Your task to perform on an android device: toggle improve location accuracy Image 0: 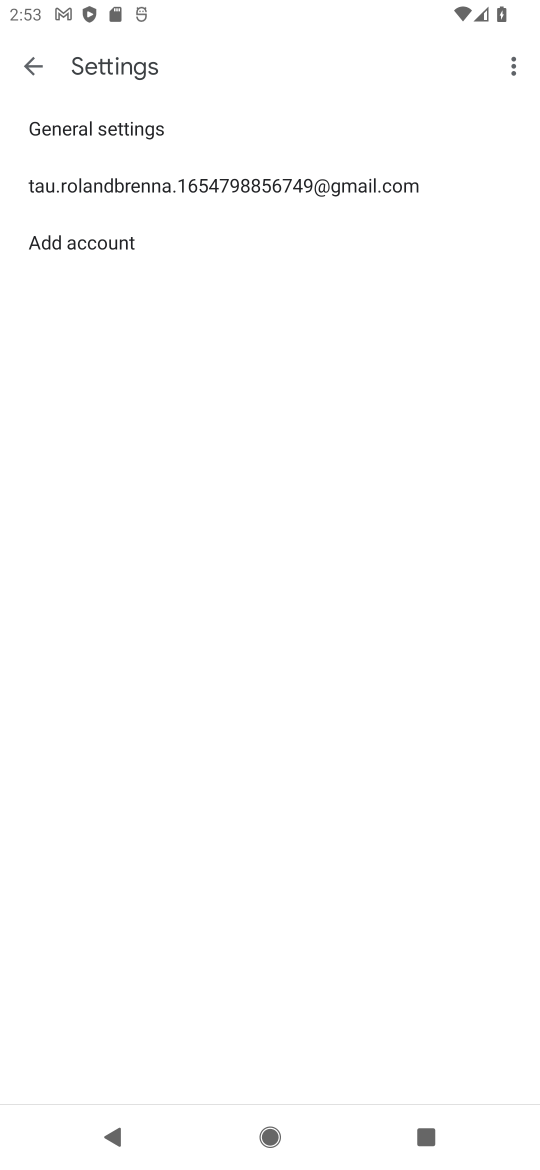
Step 0: press home button
Your task to perform on an android device: toggle improve location accuracy Image 1: 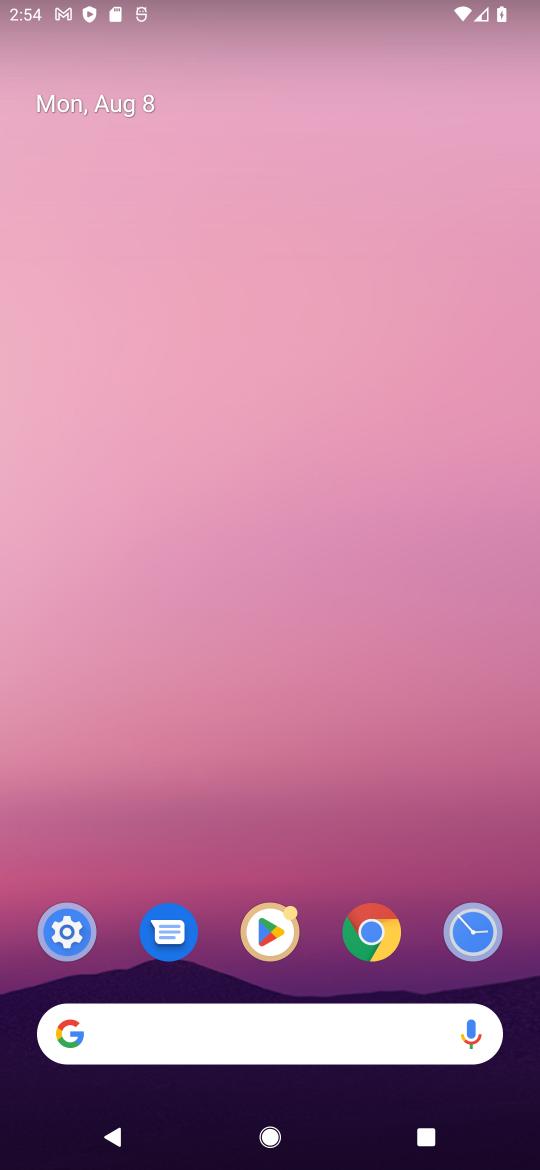
Step 1: click (80, 928)
Your task to perform on an android device: toggle improve location accuracy Image 2: 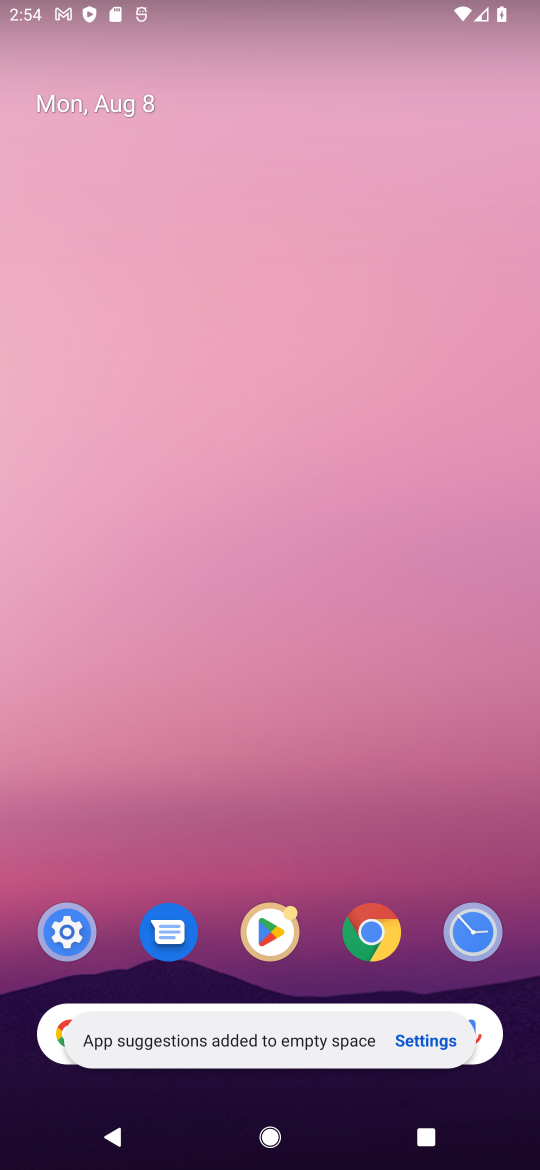
Step 2: click (80, 928)
Your task to perform on an android device: toggle improve location accuracy Image 3: 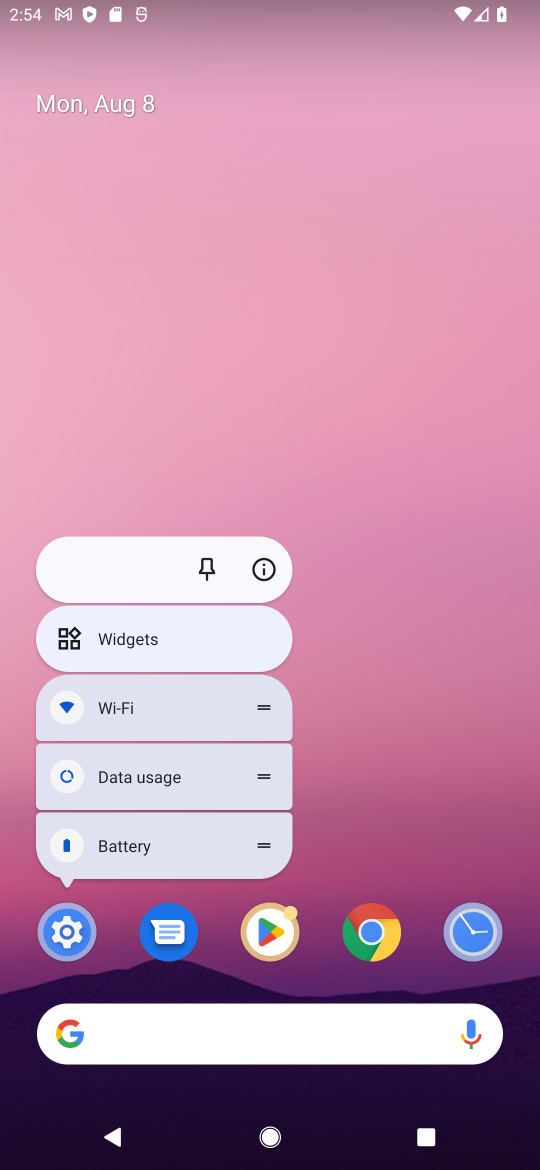
Step 3: click (83, 940)
Your task to perform on an android device: toggle improve location accuracy Image 4: 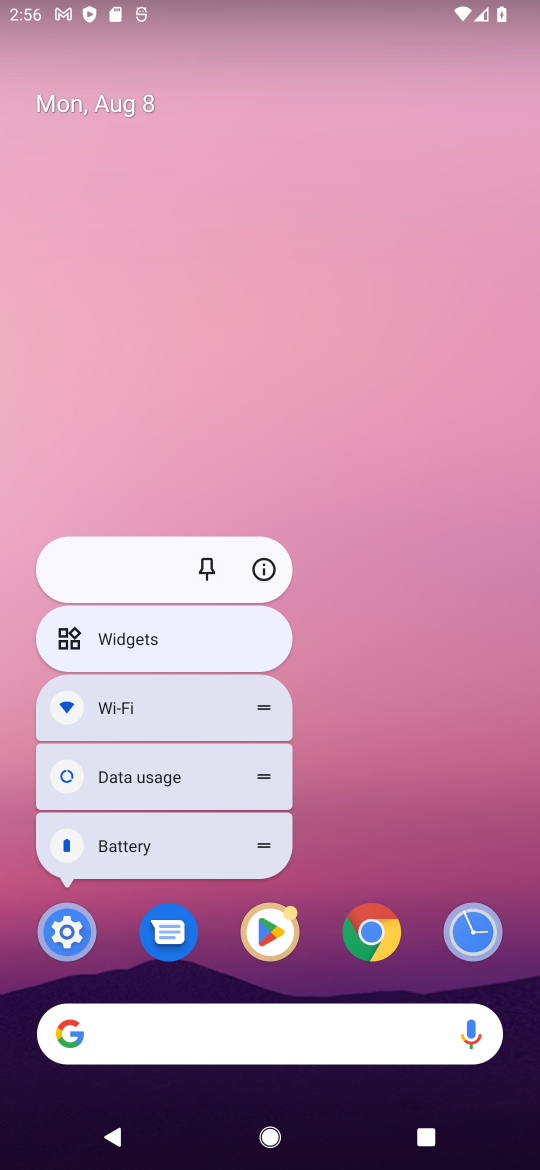
Step 4: click (34, 958)
Your task to perform on an android device: toggle improve location accuracy Image 5: 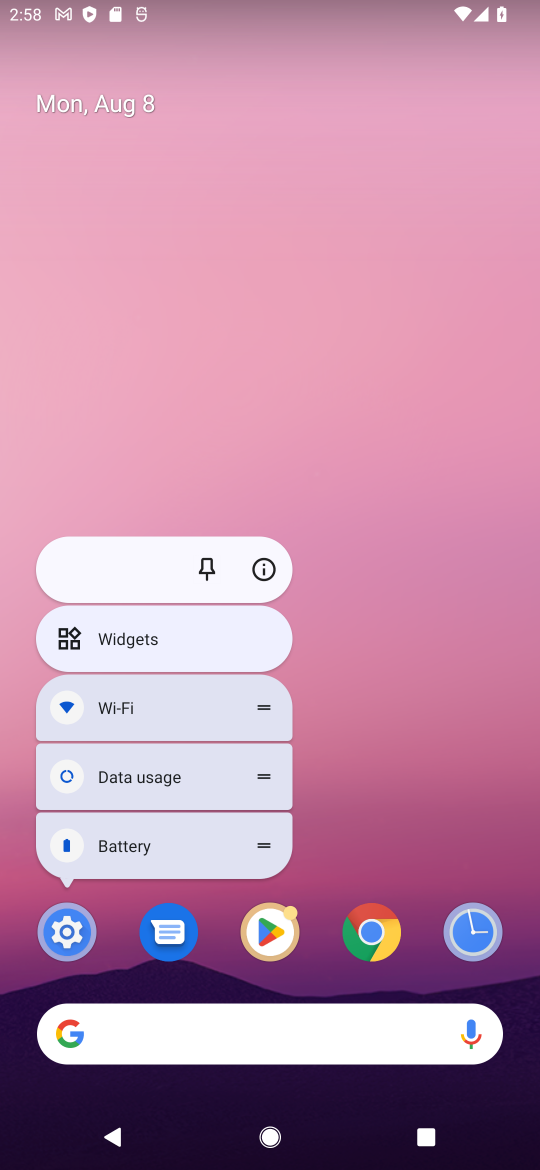
Step 5: click (64, 934)
Your task to perform on an android device: toggle improve location accuracy Image 6: 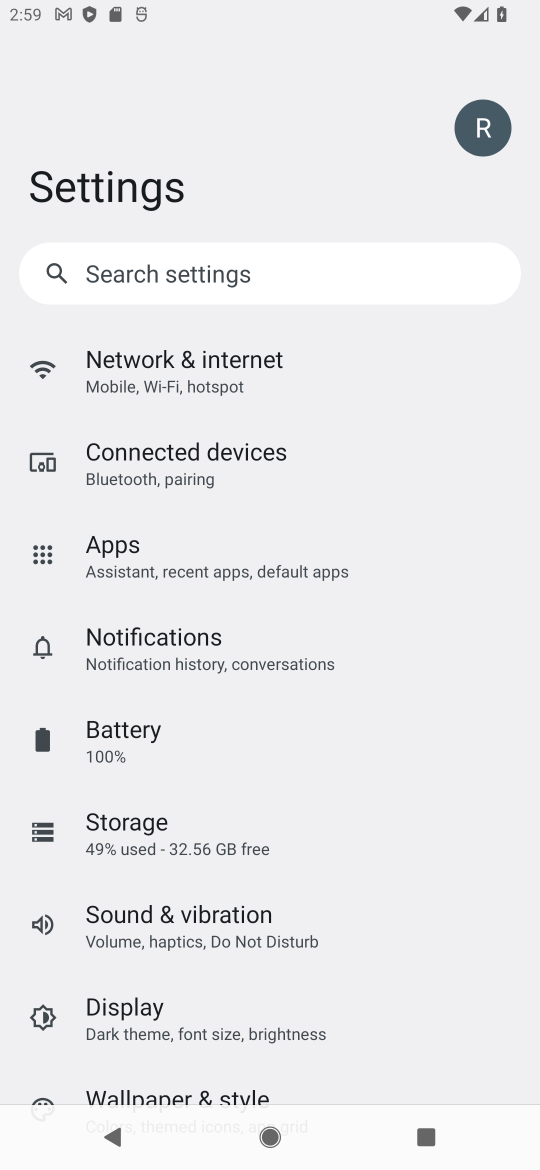
Step 6: drag from (289, 957) to (472, 83)
Your task to perform on an android device: toggle improve location accuracy Image 7: 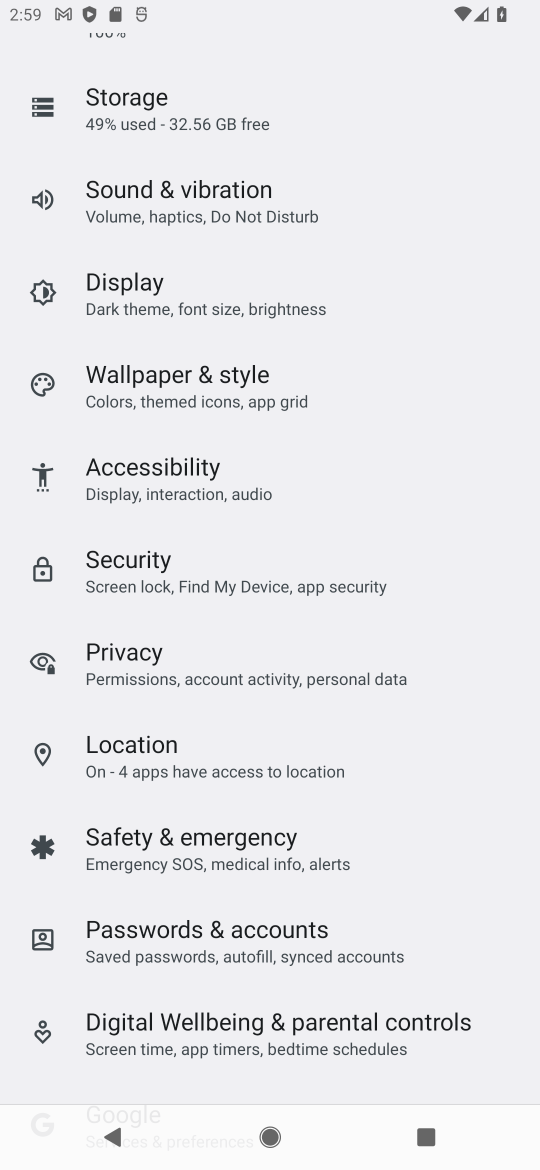
Step 7: click (210, 750)
Your task to perform on an android device: toggle improve location accuracy Image 8: 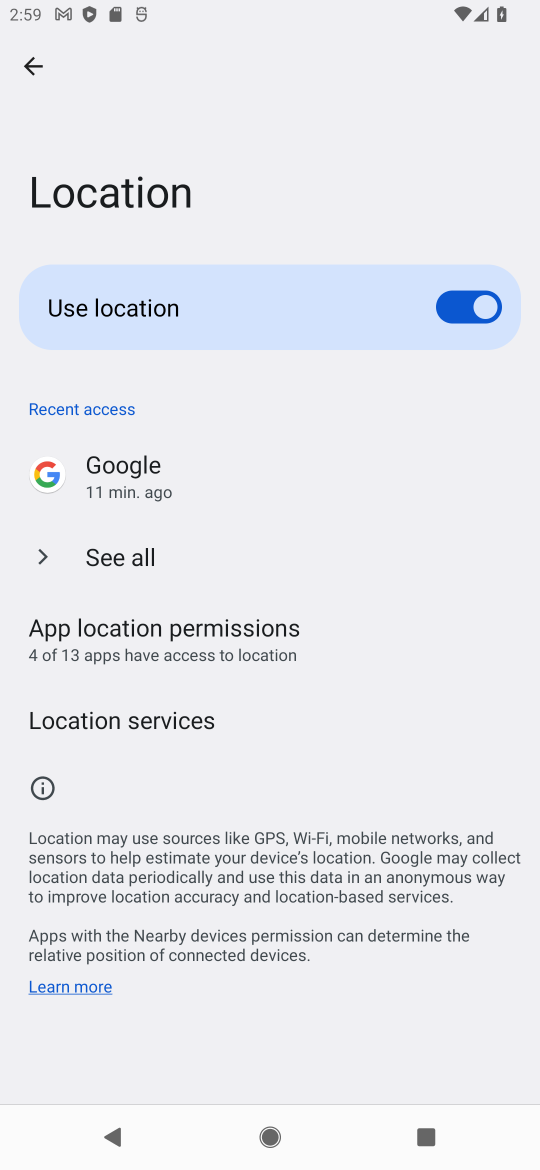
Step 8: click (170, 729)
Your task to perform on an android device: toggle improve location accuracy Image 9: 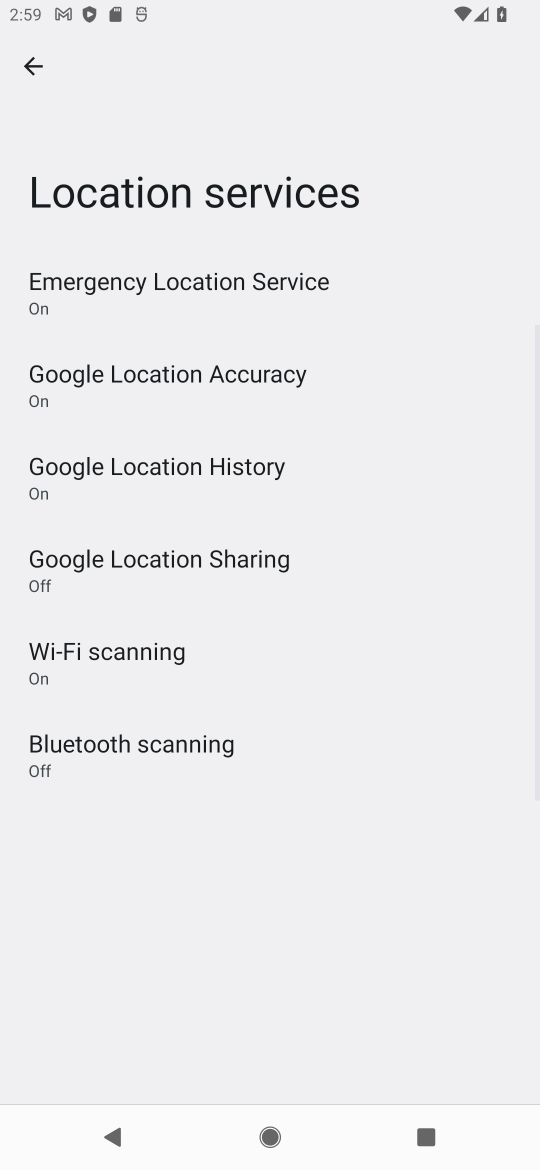
Step 9: click (284, 378)
Your task to perform on an android device: toggle improve location accuracy Image 10: 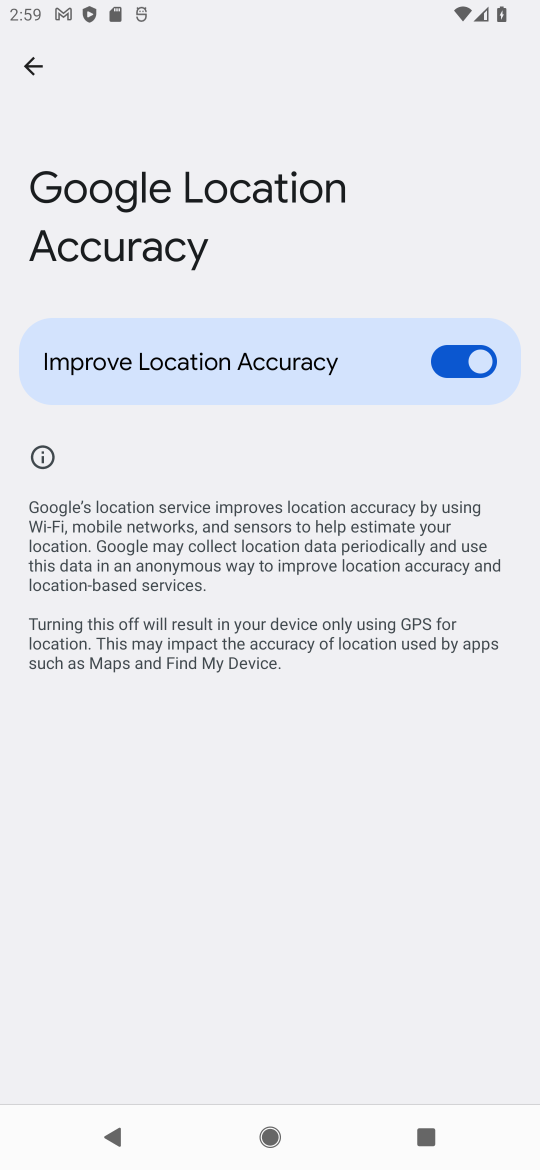
Step 10: click (461, 368)
Your task to perform on an android device: toggle improve location accuracy Image 11: 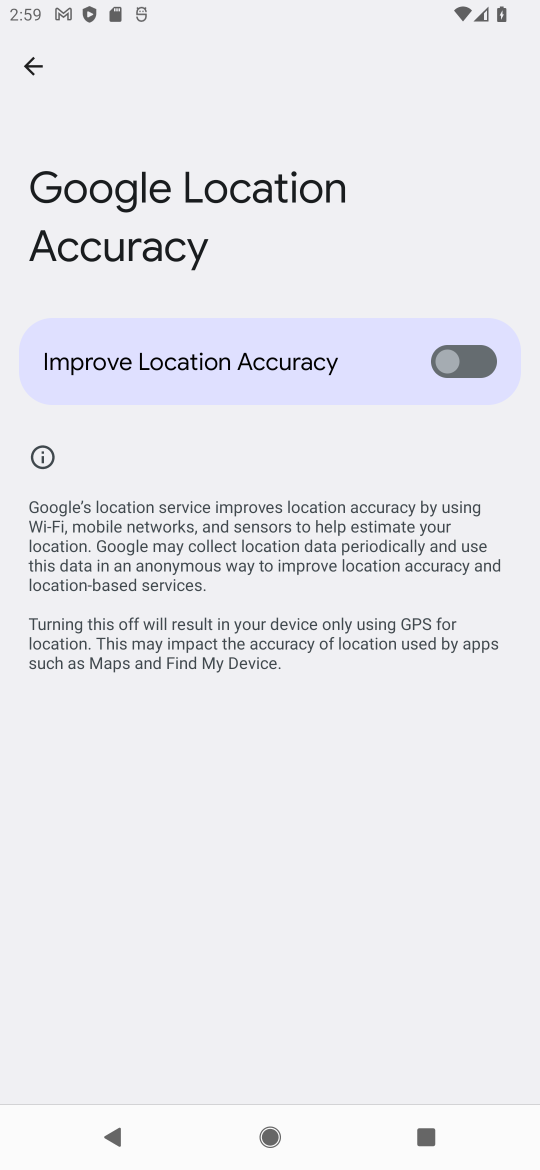
Step 11: task complete